Your task to perform on an android device: install app "Grab" Image 0: 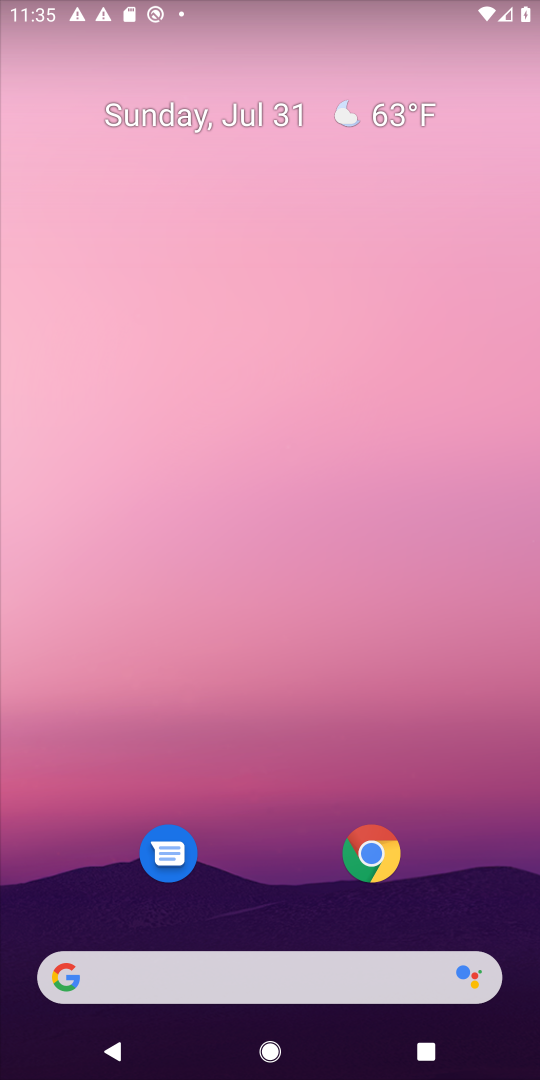
Step 0: drag from (313, 973) to (306, 39)
Your task to perform on an android device: install app "Grab" Image 1: 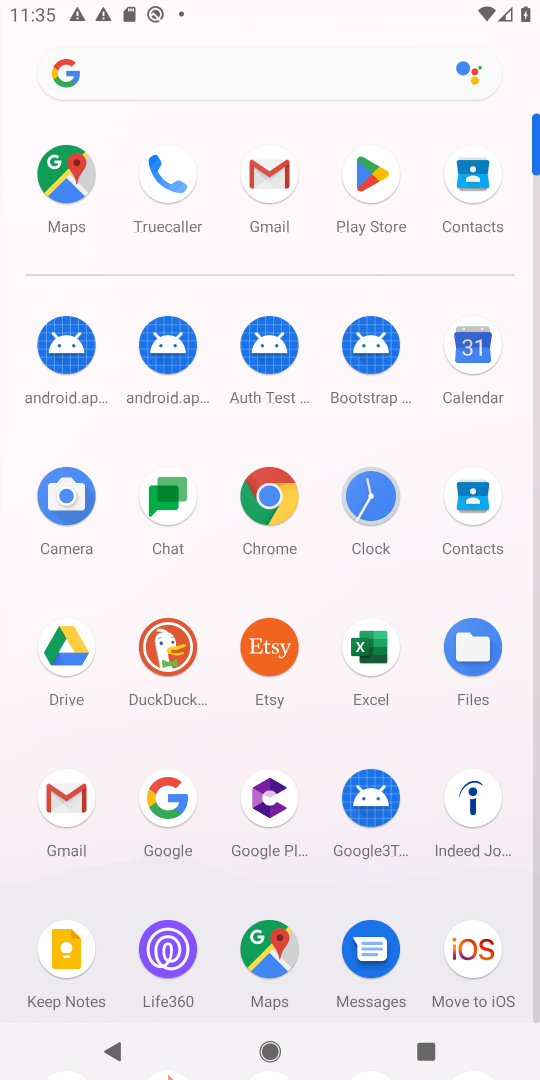
Step 1: click (366, 168)
Your task to perform on an android device: install app "Grab" Image 2: 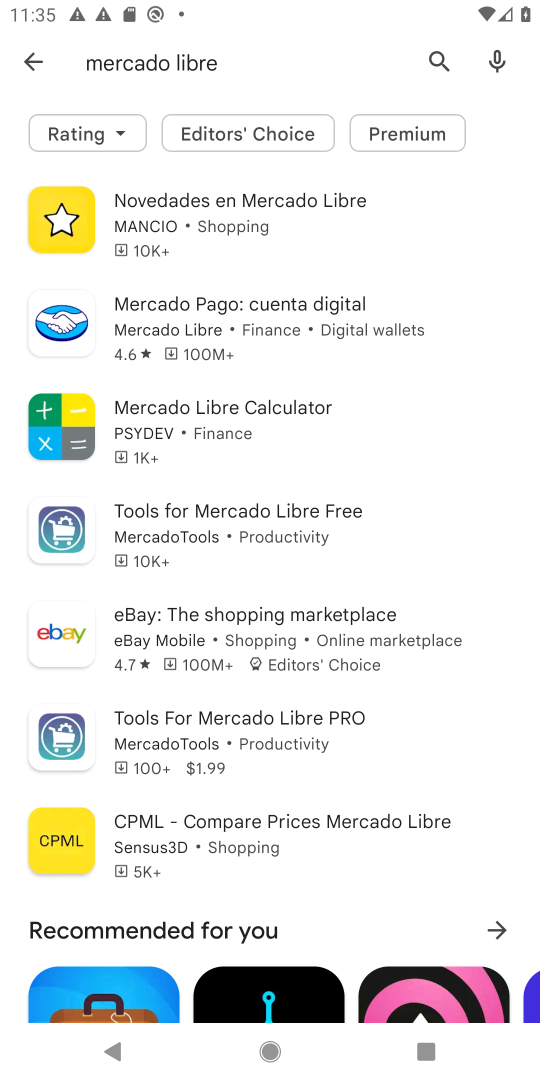
Step 2: click (434, 56)
Your task to perform on an android device: install app "Grab" Image 3: 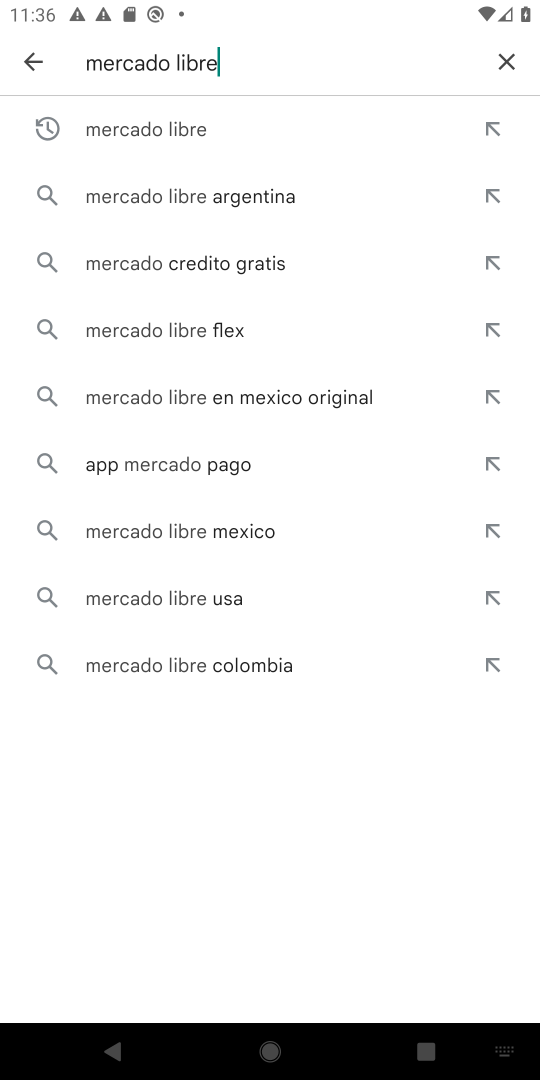
Step 3: click (508, 49)
Your task to perform on an android device: install app "Grab" Image 4: 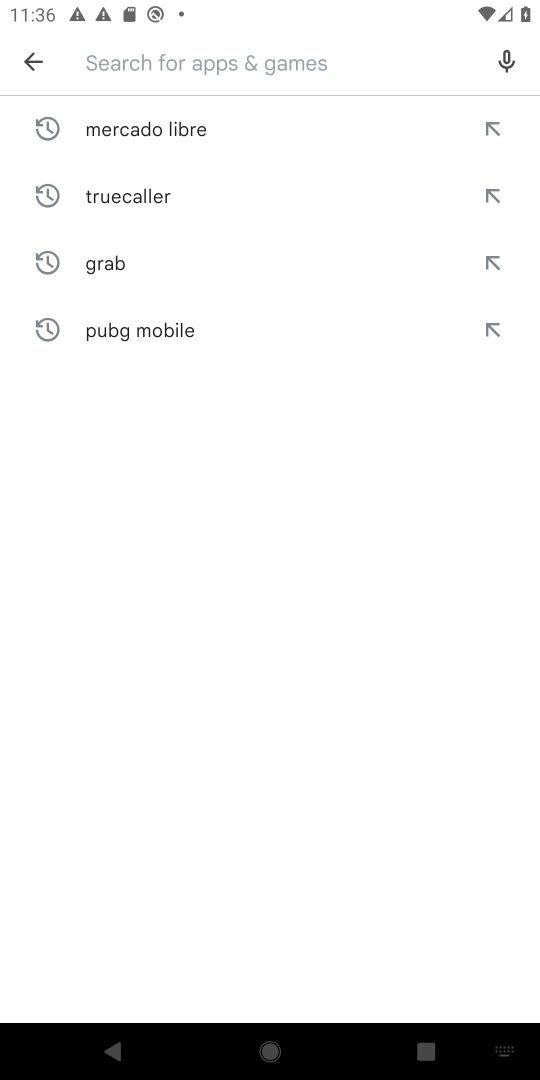
Step 4: type "Grab"
Your task to perform on an android device: install app "Grab" Image 5: 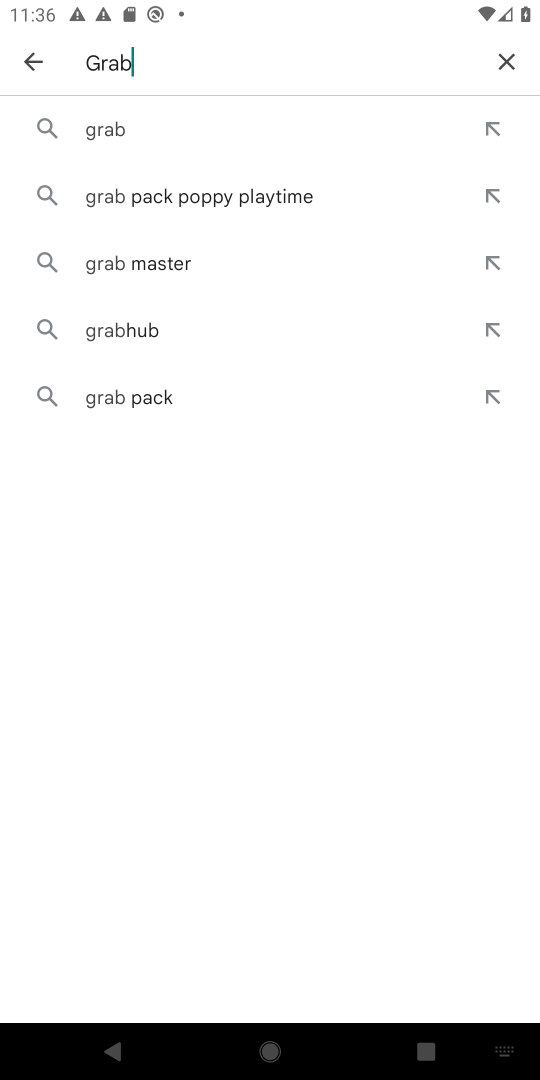
Step 5: type ""
Your task to perform on an android device: install app "Grab" Image 6: 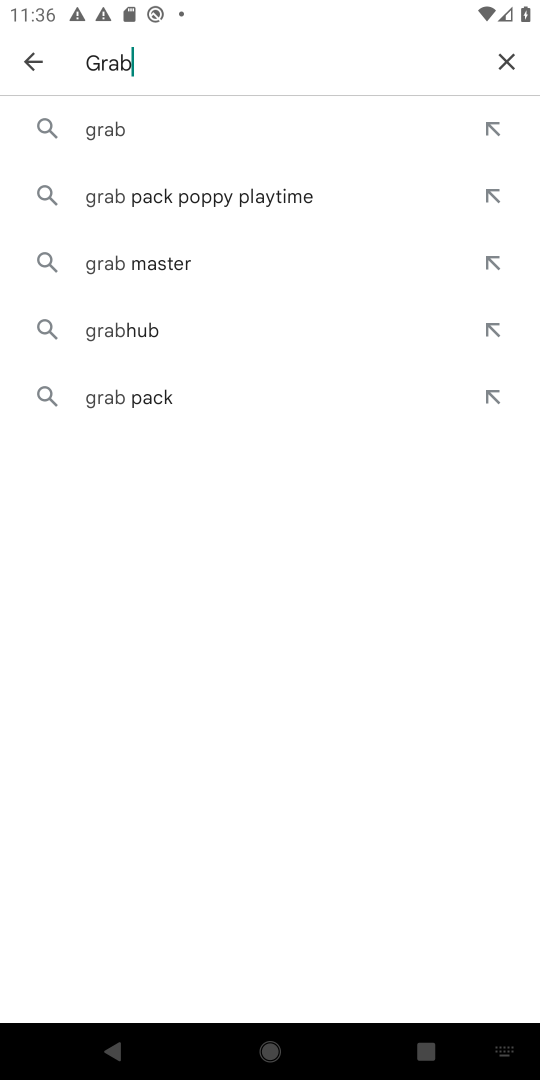
Step 6: click (105, 130)
Your task to perform on an android device: install app "Grab" Image 7: 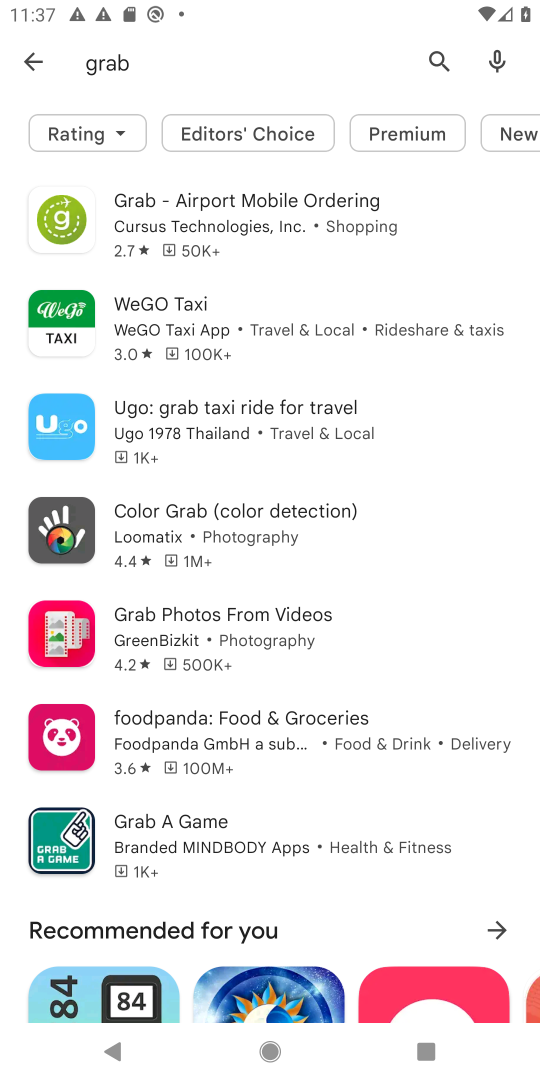
Step 7: click (141, 201)
Your task to perform on an android device: install app "Grab" Image 8: 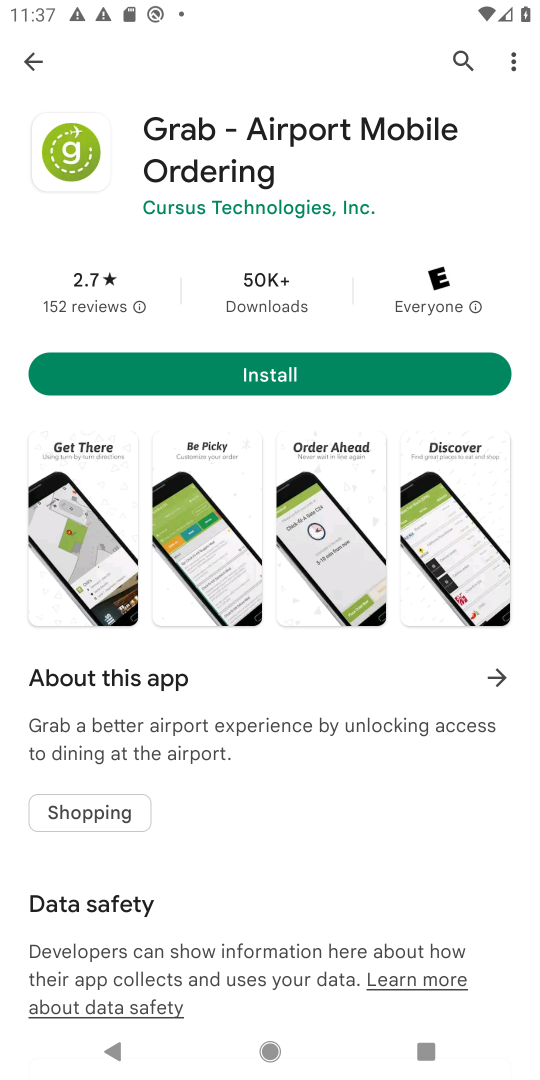
Step 8: click (283, 368)
Your task to perform on an android device: install app "Grab" Image 9: 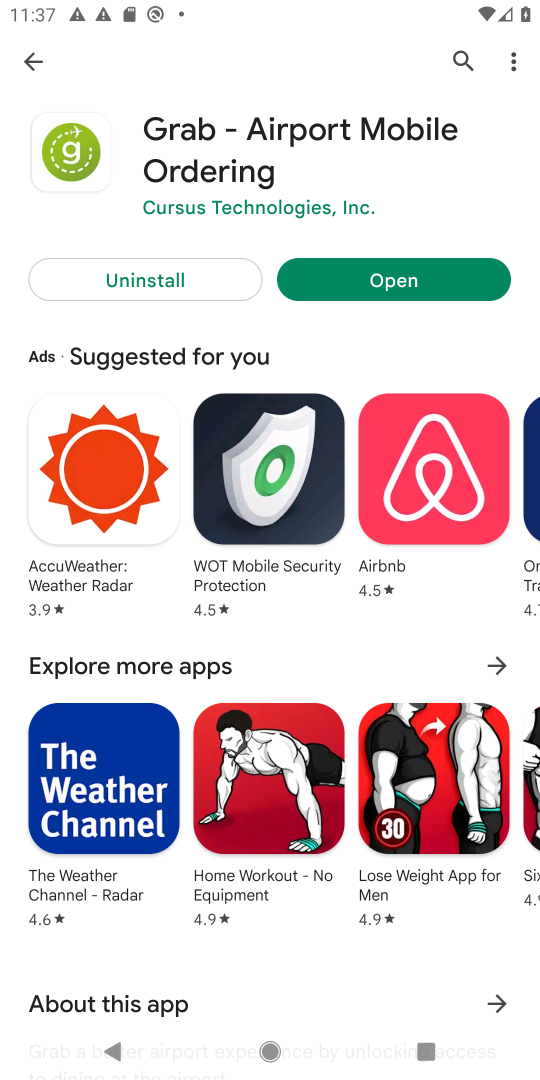
Step 9: task complete